Your task to perform on an android device: check storage Image 0: 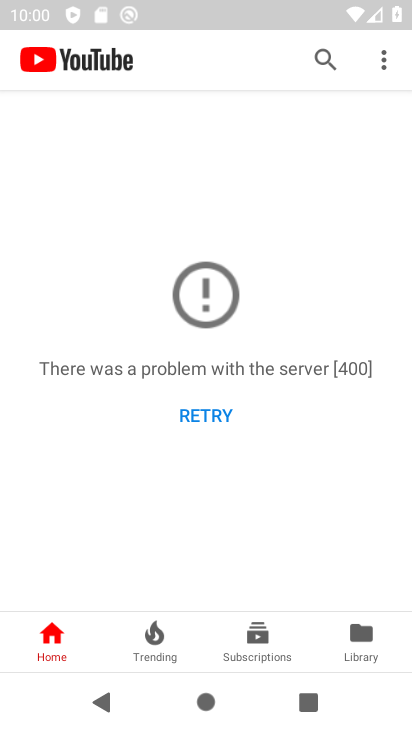
Step 0: press home button
Your task to perform on an android device: check storage Image 1: 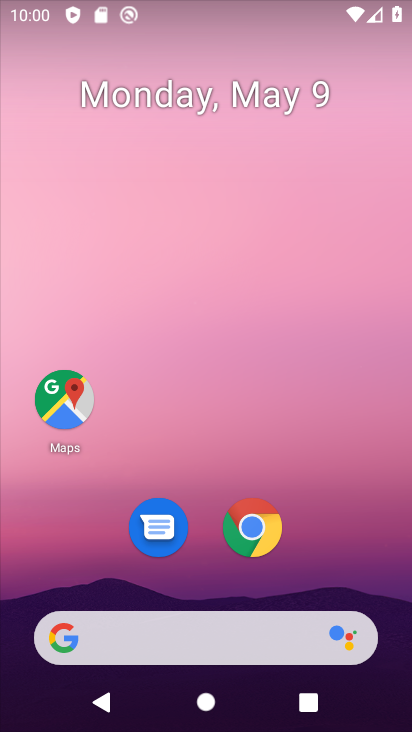
Step 1: drag from (343, 549) to (178, 6)
Your task to perform on an android device: check storage Image 2: 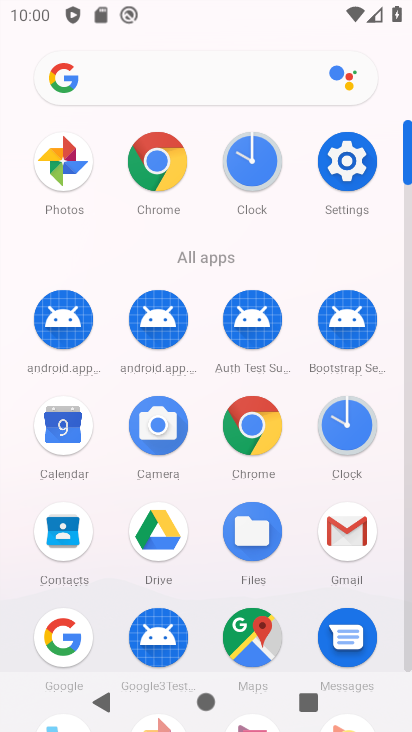
Step 2: click (347, 156)
Your task to perform on an android device: check storage Image 3: 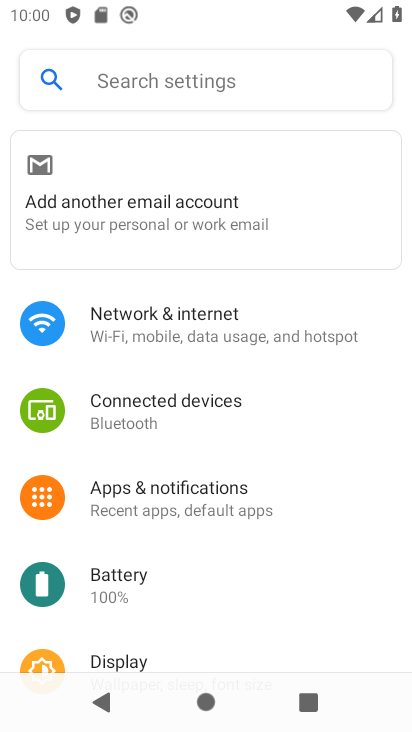
Step 3: drag from (168, 447) to (231, 282)
Your task to perform on an android device: check storage Image 4: 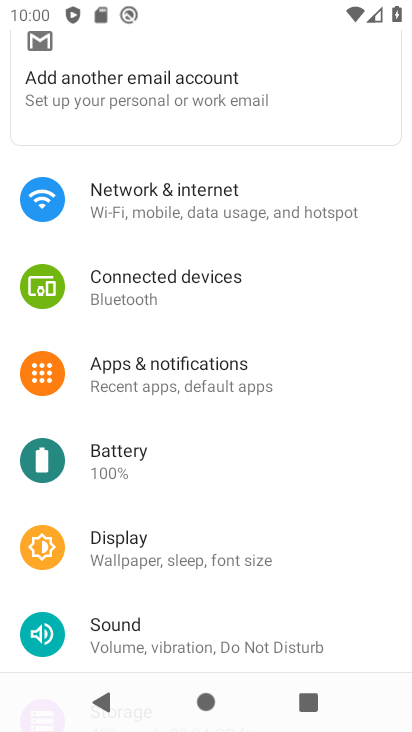
Step 4: drag from (173, 516) to (258, 334)
Your task to perform on an android device: check storage Image 5: 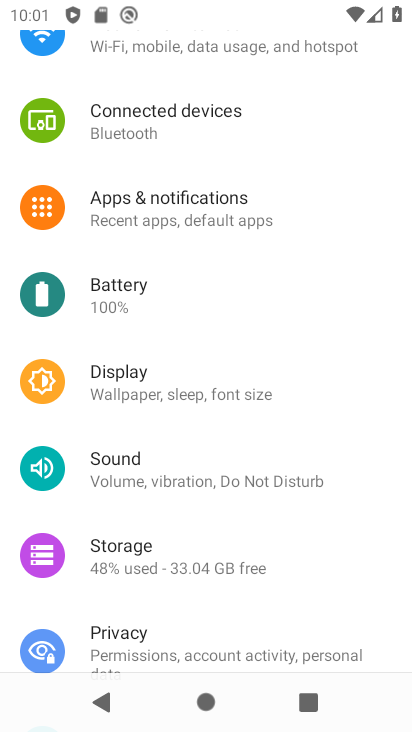
Step 5: click (124, 554)
Your task to perform on an android device: check storage Image 6: 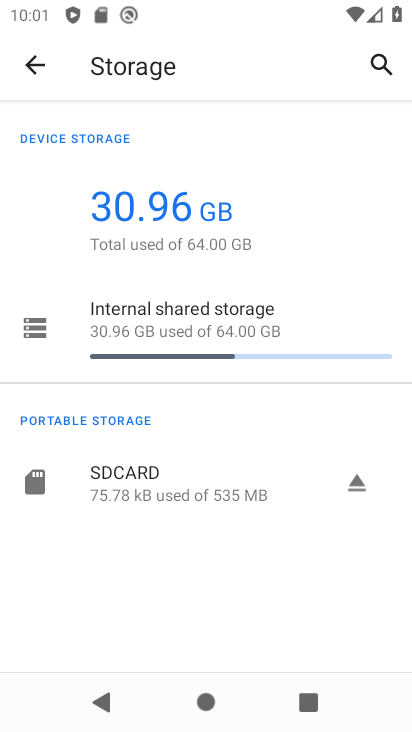
Step 6: task complete